Your task to perform on an android device: Open network settings Image 0: 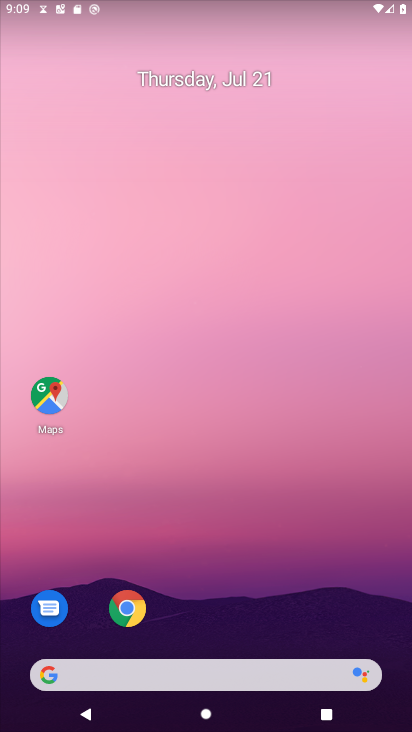
Step 0: drag from (203, 482) to (181, 165)
Your task to perform on an android device: Open network settings Image 1: 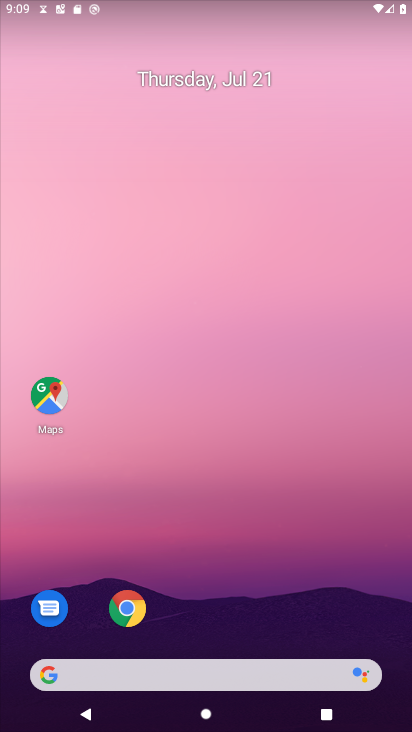
Step 1: drag from (186, 449) to (134, 32)
Your task to perform on an android device: Open network settings Image 2: 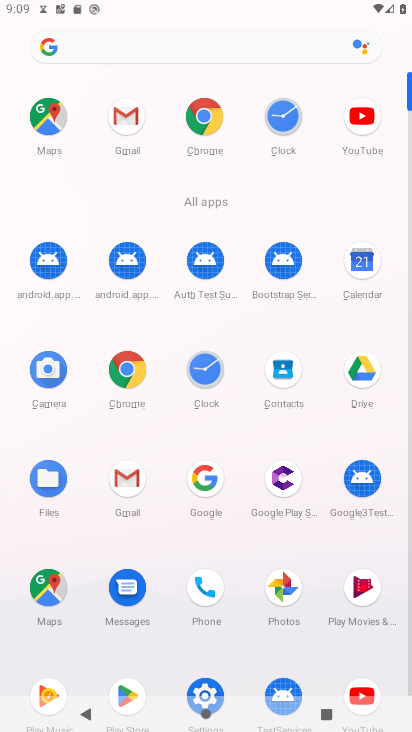
Step 2: click (199, 693)
Your task to perform on an android device: Open network settings Image 3: 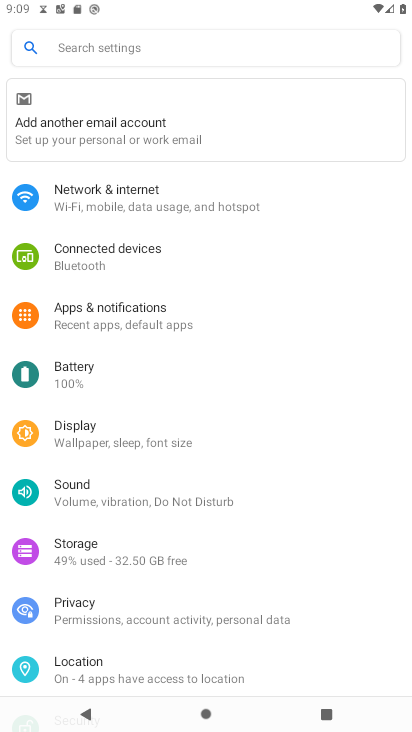
Step 3: click (146, 202)
Your task to perform on an android device: Open network settings Image 4: 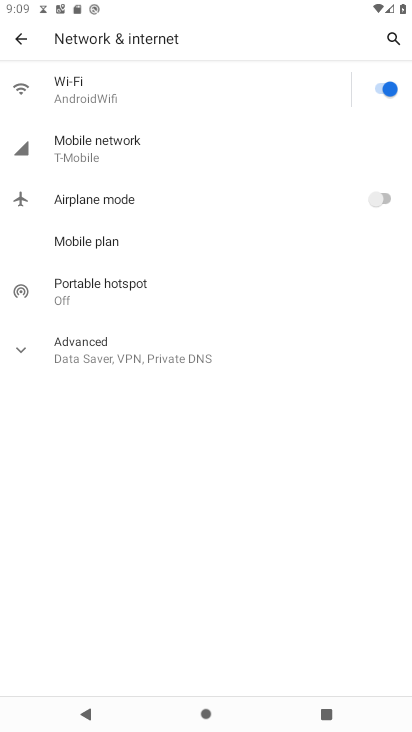
Step 4: task complete